Your task to perform on an android device: Go to calendar. Show me events next week Image 0: 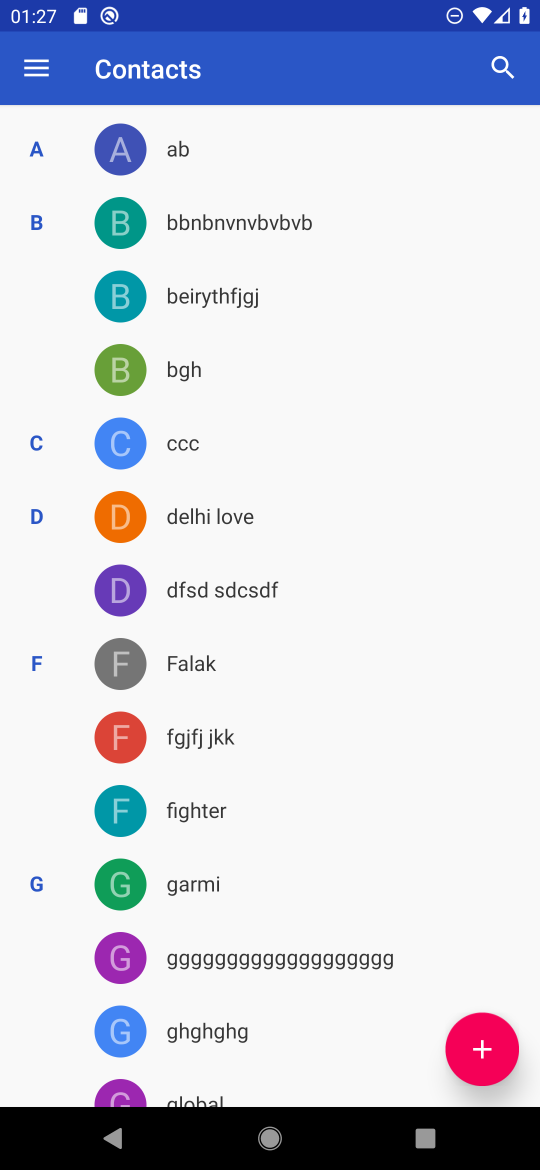
Step 0: press home button
Your task to perform on an android device: Go to calendar. Show me events next week Image 1: 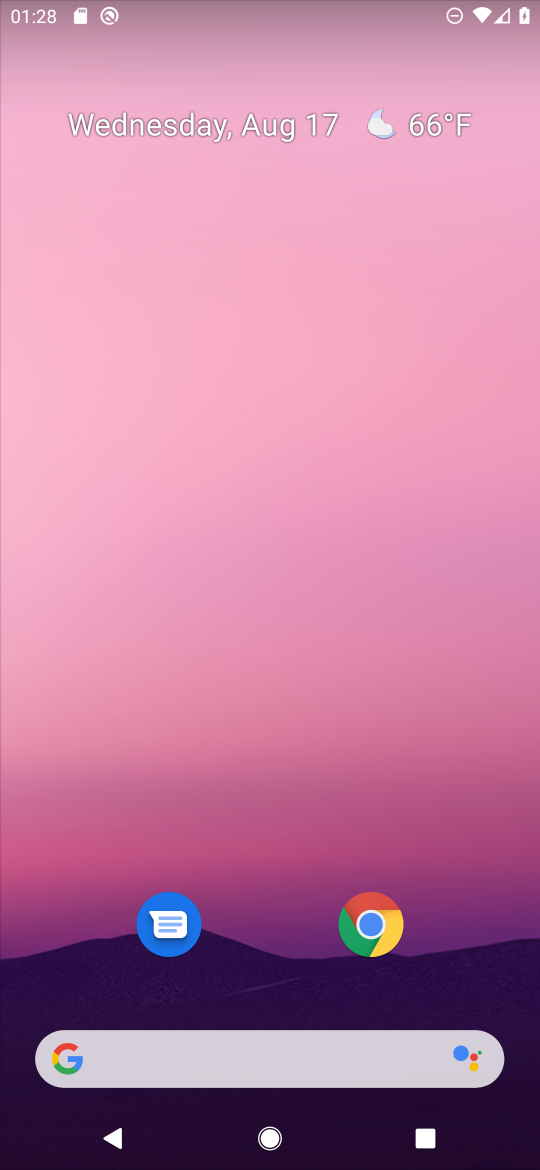
Step 1: click (278, 117)
Your task to perform on an android device: Go to calendar. Show me events next week Image 2: 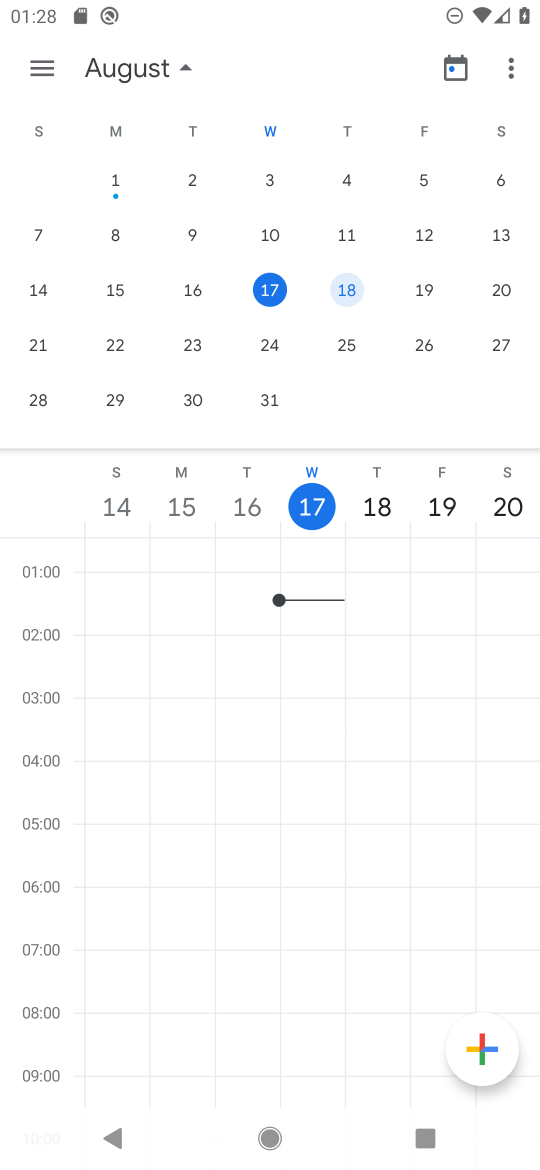
Step 2: click (48, 54)
Your task to perform on an android device: Go to calendar. Show me events next week Image 3: 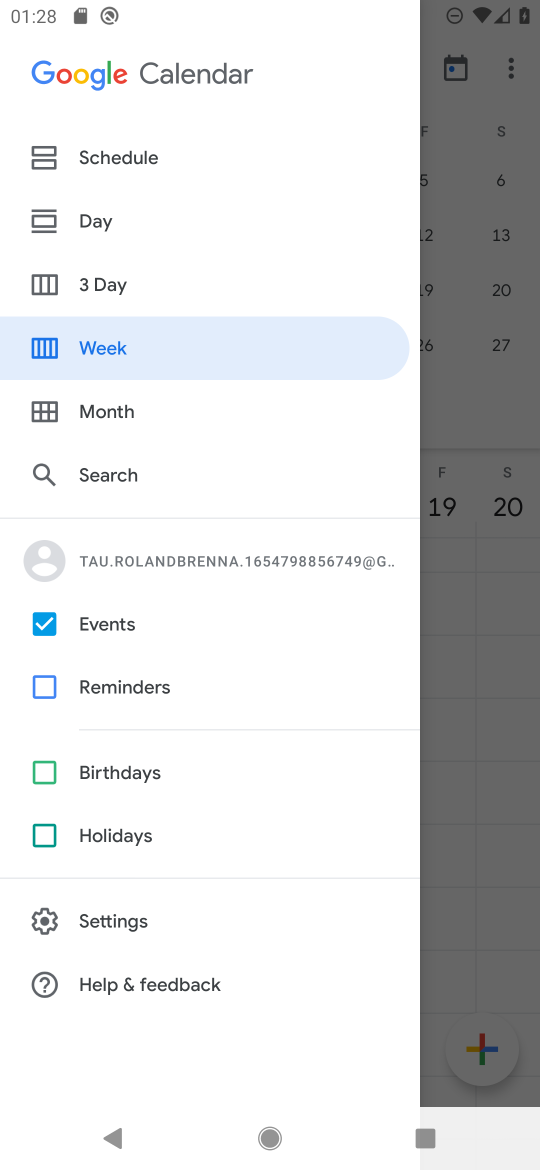
Step 3: click (492, 804)
Your task to perform on an android device: Go to calendar. Show me events next week Image 4: 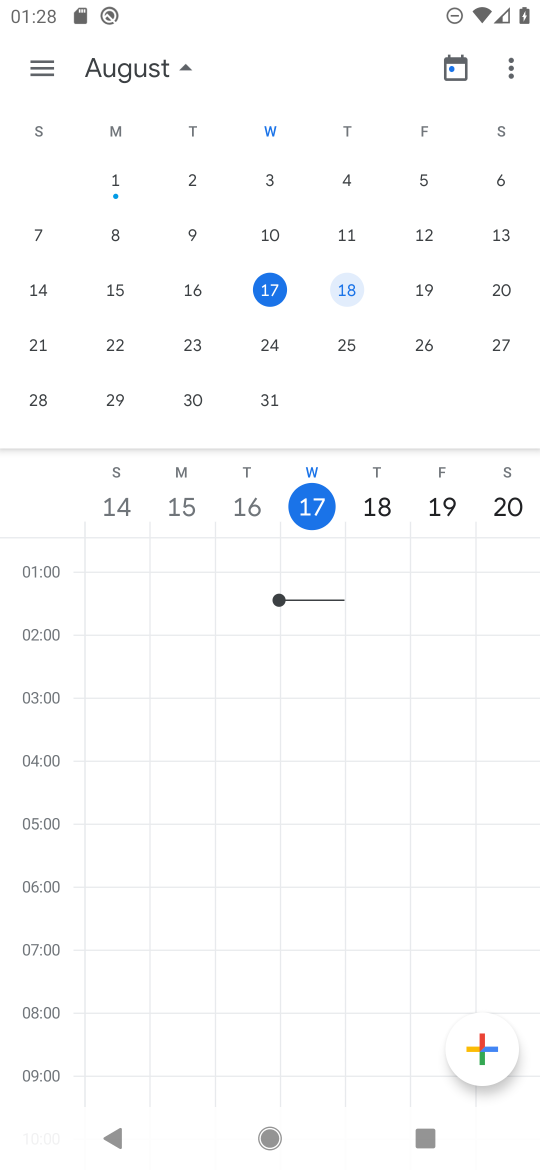
Step 4: click (263, 348)
Your task to perform on an android device: Go to calendar. Show me events next week Image 5: 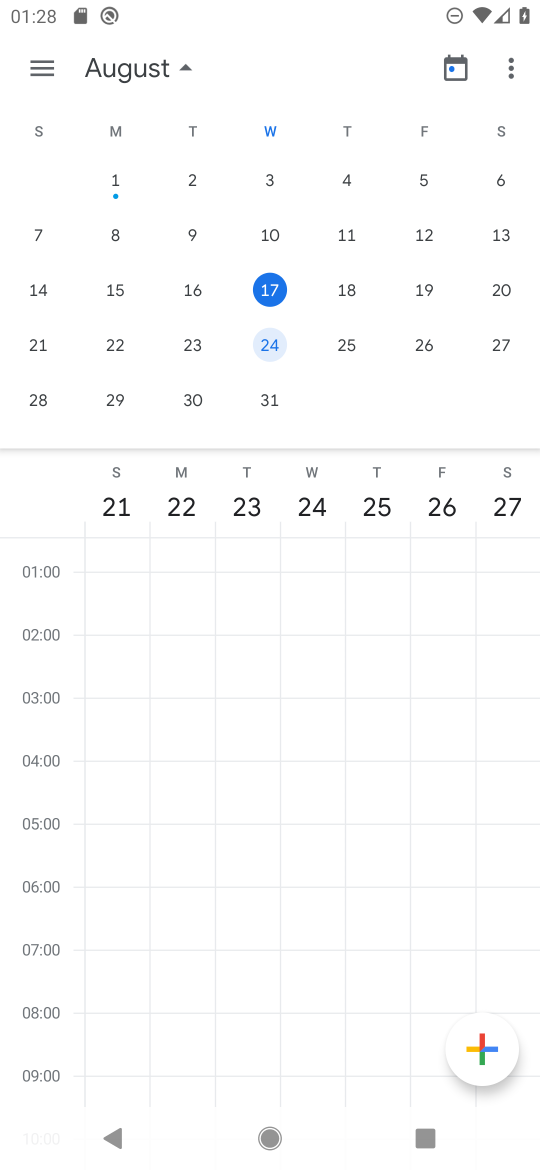
Step 5: task complete